Your task to perform on an android device: Turn off the flashlight Image 0: 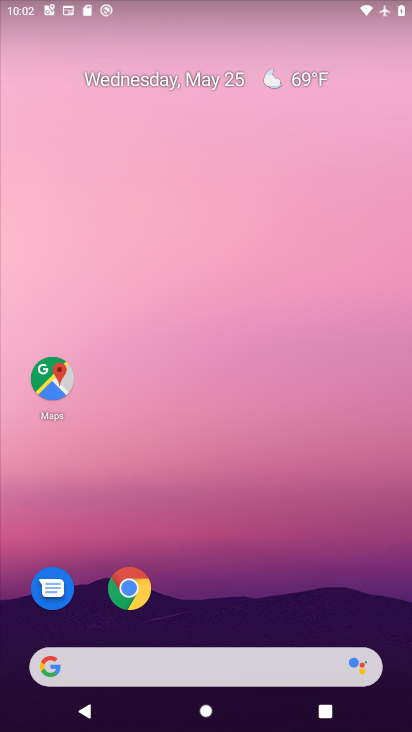
Step 0: drag from (237, 10) to (223, 364)
Your task to perform on an android device: Turn off the flashlight Image 1: 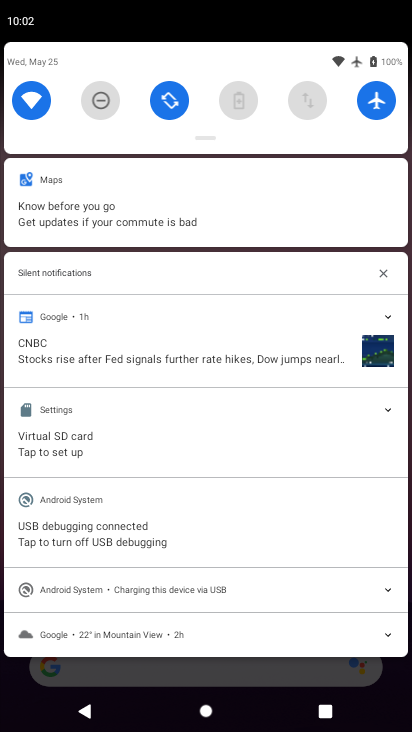
Step 1: drag from (274, 53) to (280, 298)
Your task to perform on an android device: Turn off the flashlight Image 2: 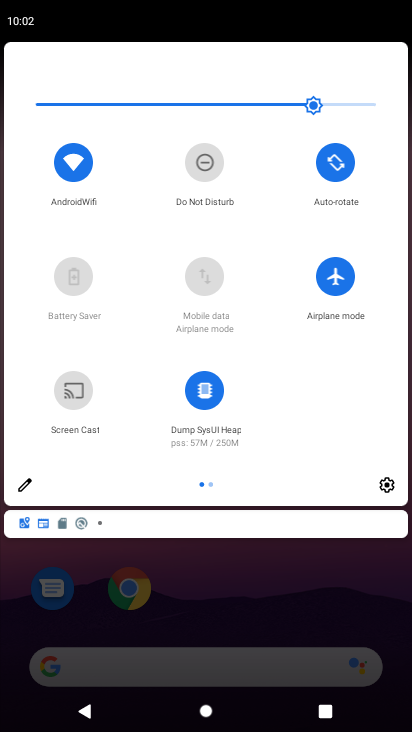
Step 2: click (30, 482)
Your task to perform on an android device: Turn off the flashlight Image 3: 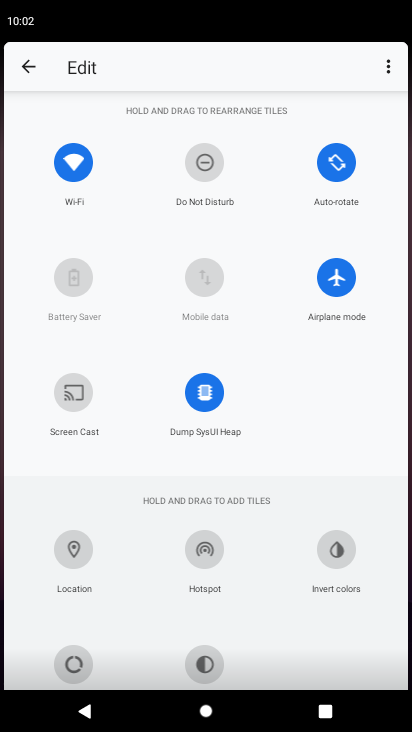
Step 3: task complete